Your task to perform on an android device: What is the recent news? Image 0: 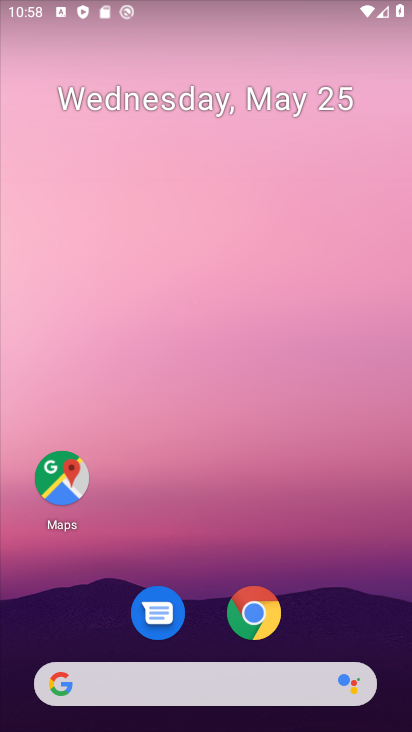
Step 0: click (236, 682)
Your task to perform on an android device: What is the recent news? Image 1: 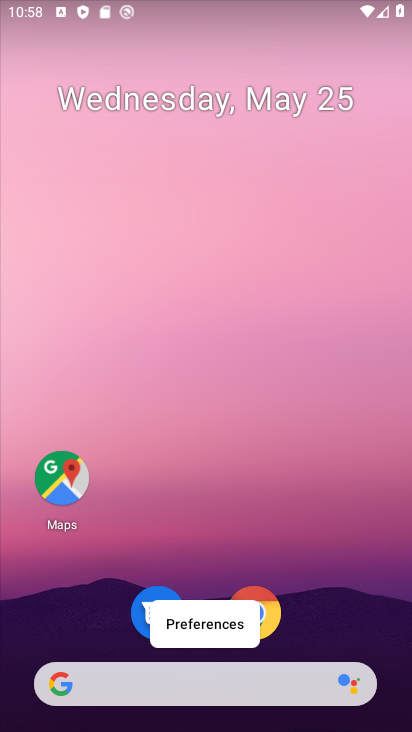
Step 1: click (132, 682)
Your task to perform on an android device: What is the recent news? Image 2: 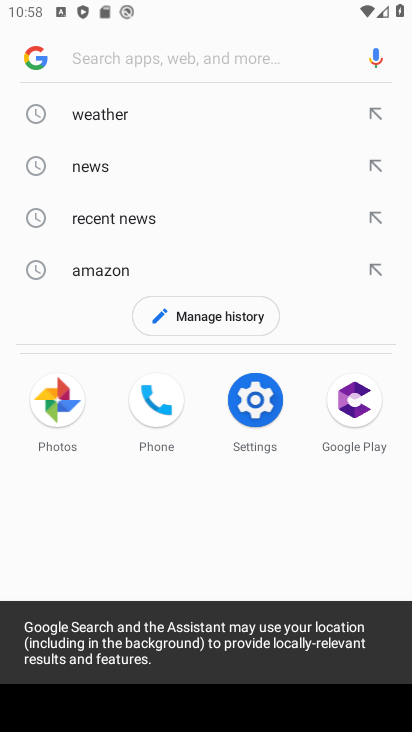
Step 2: click (80, 211)
Your task to perform on an android device: What is the recent news? Image 3: 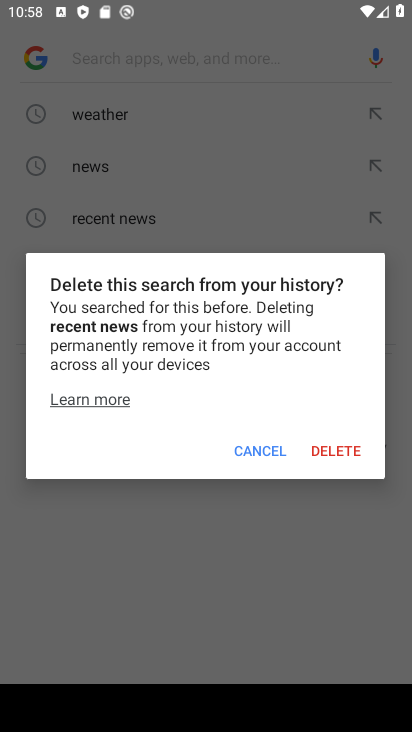
Step 3: click (260, 448)
Your task to perform on an android device: What is the recent news? Image 4: 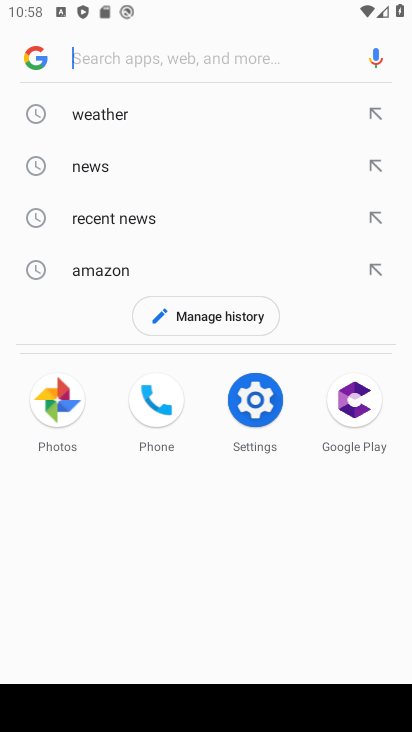
Step 4: click (72, 219)
Your task to perform on an android device: What is the recent news? Image 5: 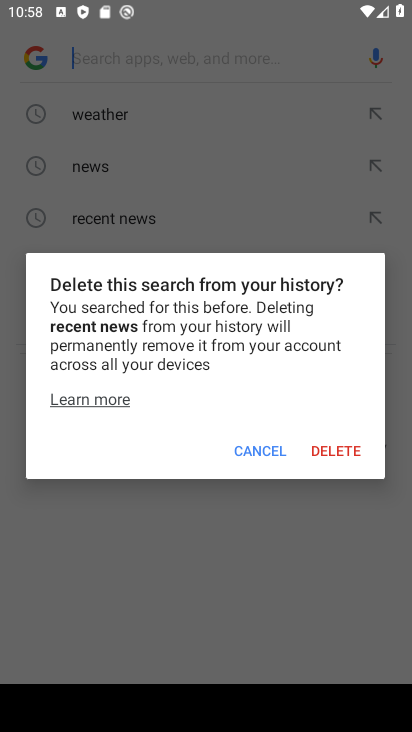
Step 5: click (265, 444)
Your task to perform on an android device: What is the recent news? Image 6: 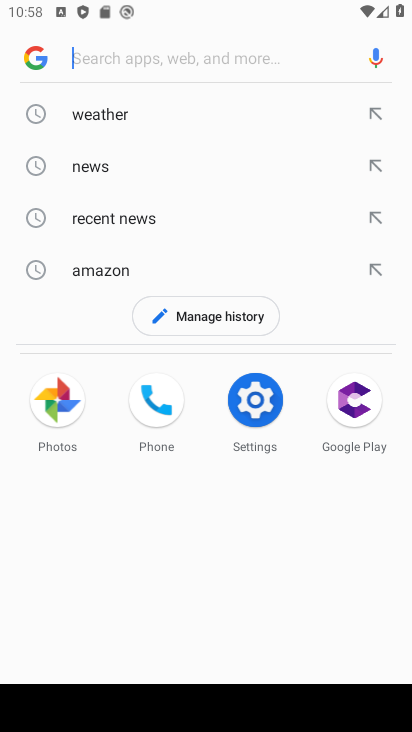
Step 6: click (33, 217)
Your task to perform on an android device: What is the recent news? Image 7: 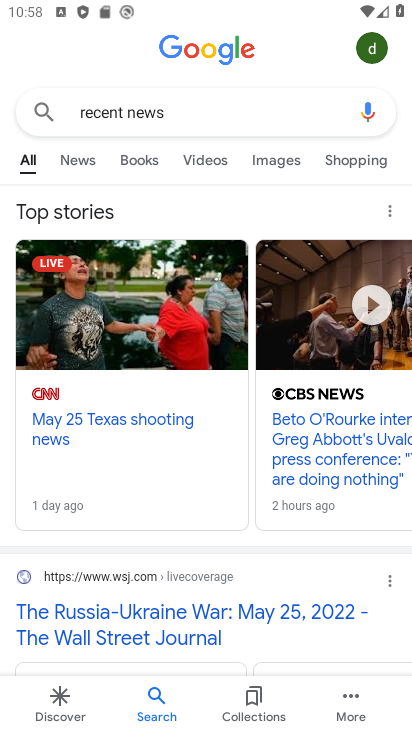
Step 7: drag from (220, 465) to (80, 502)
Your task to perform on an android device: What is the recent news? Image 8: 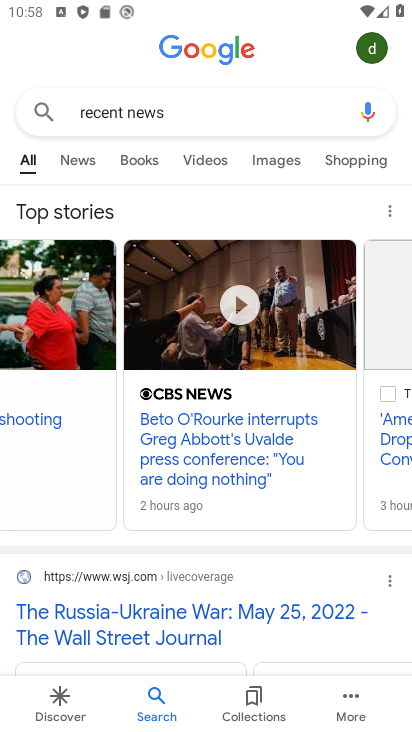
Step 8: drag from (186, 433) to (90, 433)
Your task to perform on an android device: What is the recent news? Image 9: 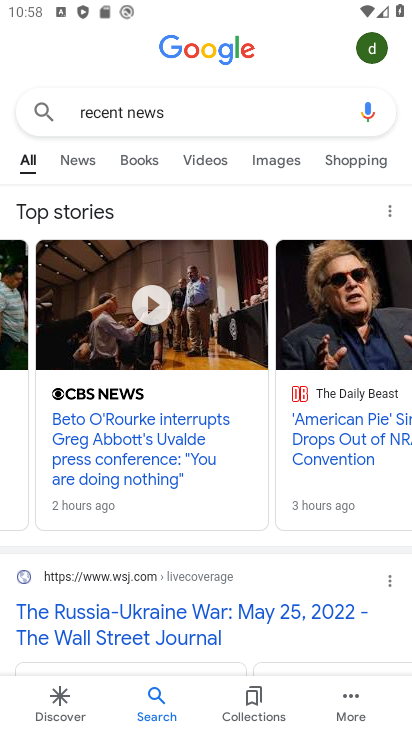
Step 9: click (147, 453)
Your task to perform on an android device: What is the recent news? Image 10: 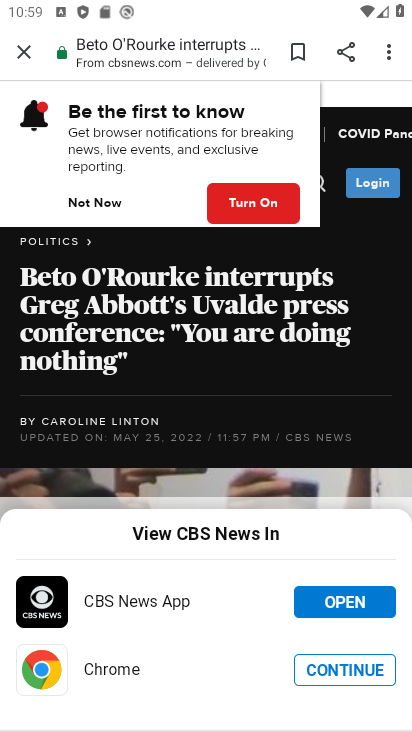
Step 10: task complete